Your task to perform on an android device: Open maps Image 0: 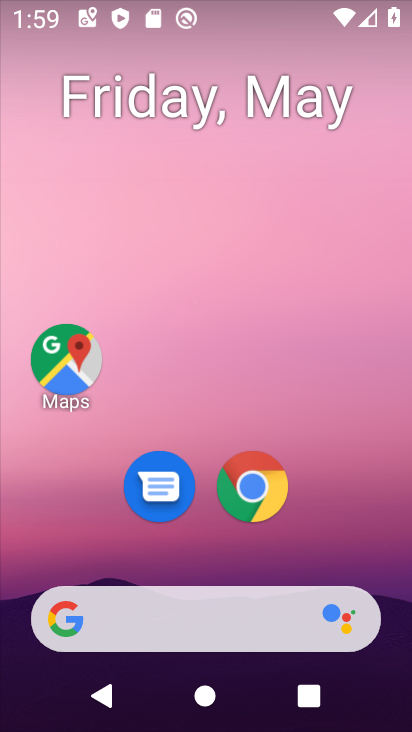
Step 0: click (67, 373)
Your task to perform on an android device: Open maps Image 1: 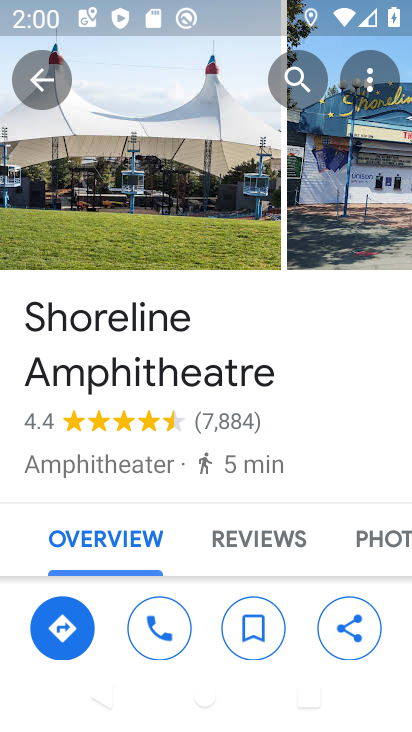
Step 1: click (39, 78)
Your task to perform on an android device: Open maps Image 2: 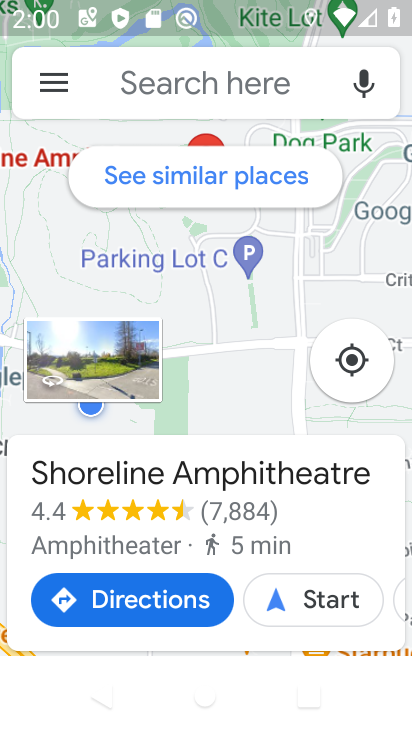
Step 2: press home button
Your task to perform on an android device: Open maps Image 3: 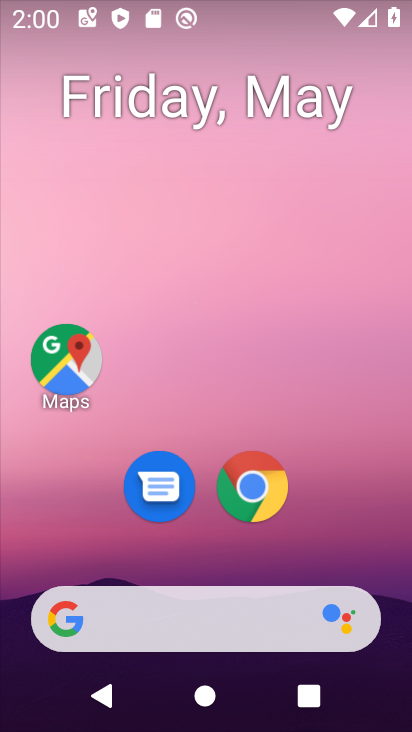
Step 3: click (68, 361)
Your task to perform on an android device: Open maps Image 4: 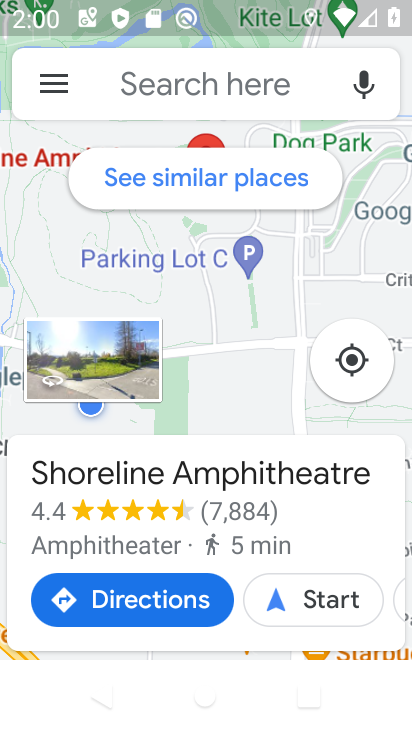
Step 4: task complete